Your task to perform on an android device: snooze an email in the gmail app Image 0: 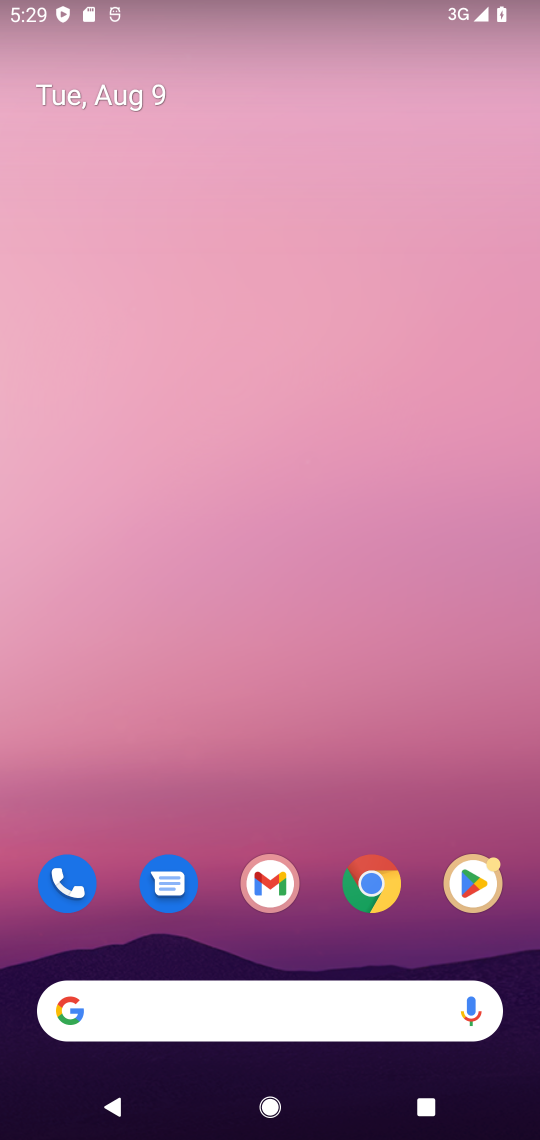
Step 0: click (257, 866)
Your task to perform on an android device: snooze an email in the gmail app Image 1: 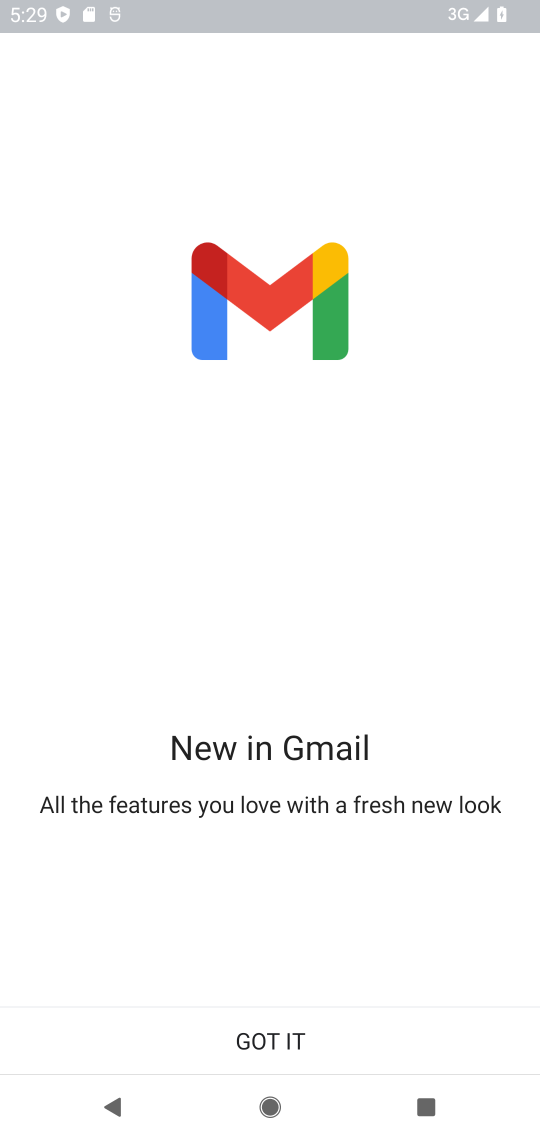
Step 1: click (283, 1020)
Your task to perform on an android device: snooze an email in the gmail app Image 2: 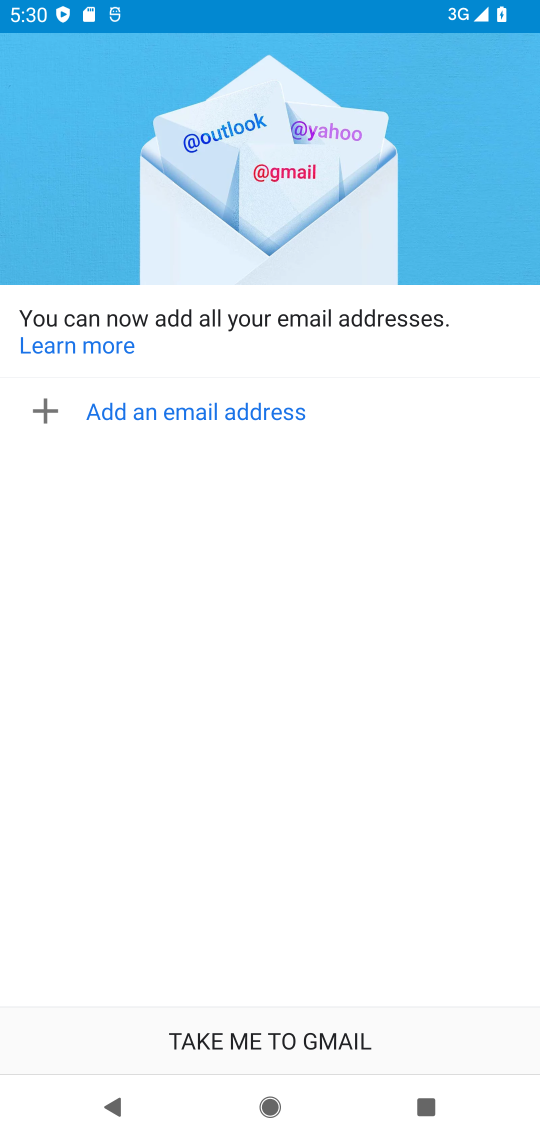
Step 2: click (293, 1037)
Your task to perform on an android device: snooze an email in the gmail app Image 3: 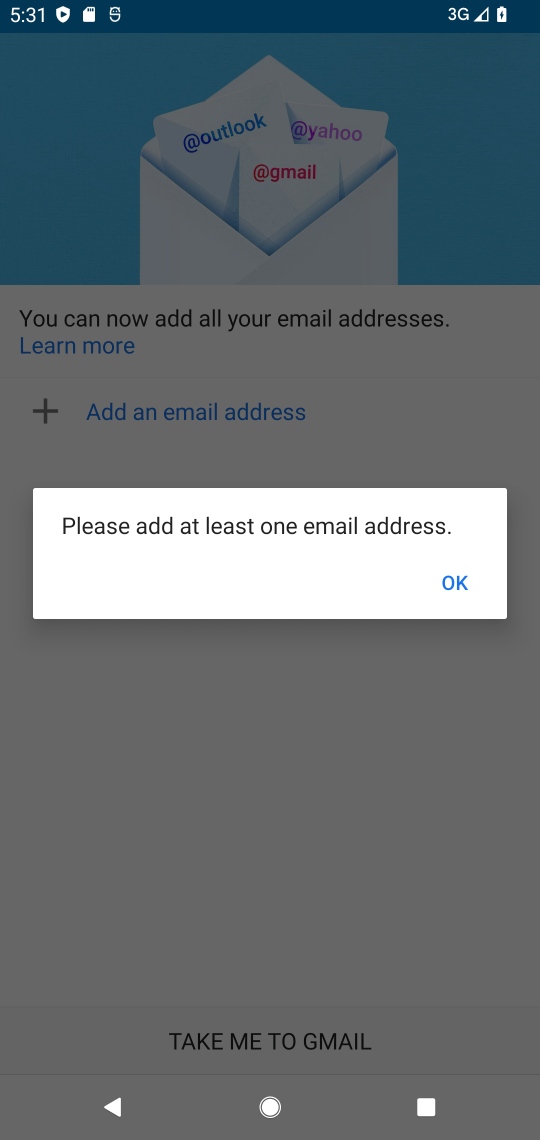
Step 3: task complete